Your task to perform on an android device: turn off data saver in the chrome app Image 0: 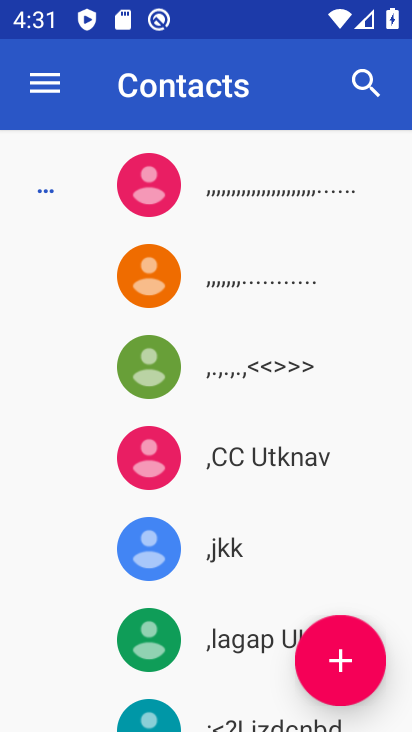
Step 0: press home button
Your task to perform on an android device: turn off data saver in the chrome app Image 1: 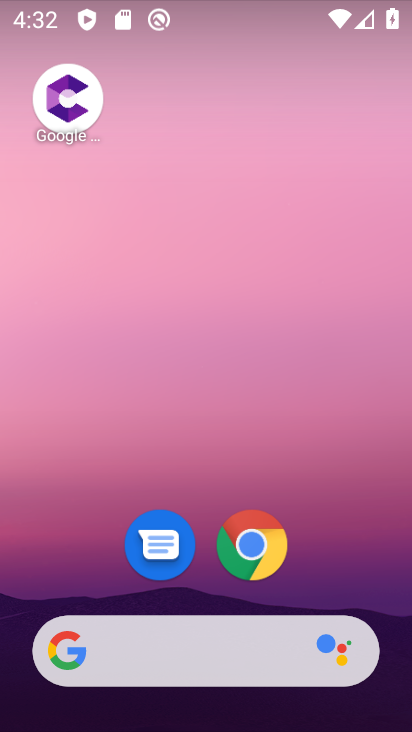
Step 1: click (262, 544)
Your task to perform on an android device: turn off data saver in the chrome app Image 2: 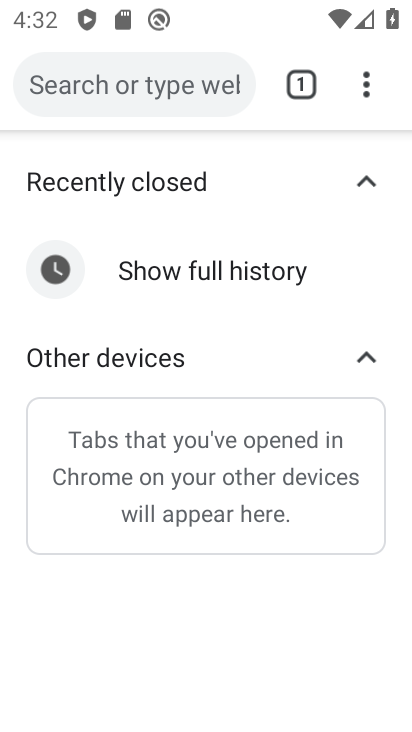
Step 2: drag from (363, 76) to (82, 597)
Your task to perform on an android device: turn off data saver in the chrome app Image 3: 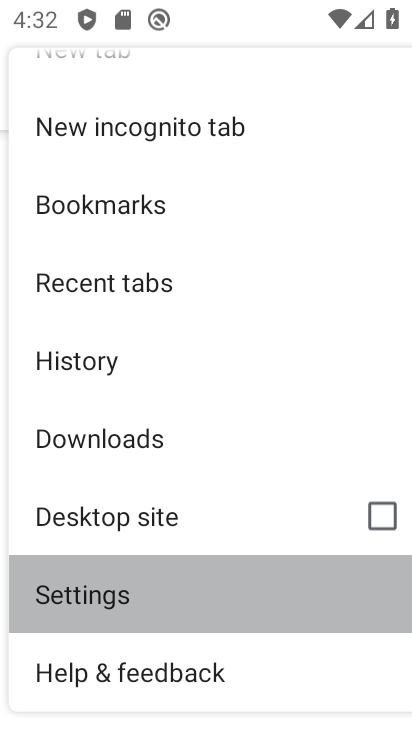
Step 3: click (82, 597)
Your task to perform on an android device: turn off data saver in the chrome app Image 4: 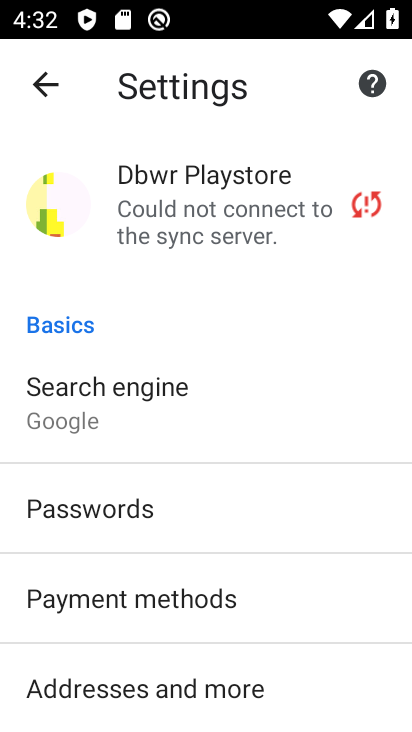
Step 4: drag from (235, 629) to (192, 180)
Your task to perform on an android device: turn off data saver in the chrome app Image 5: 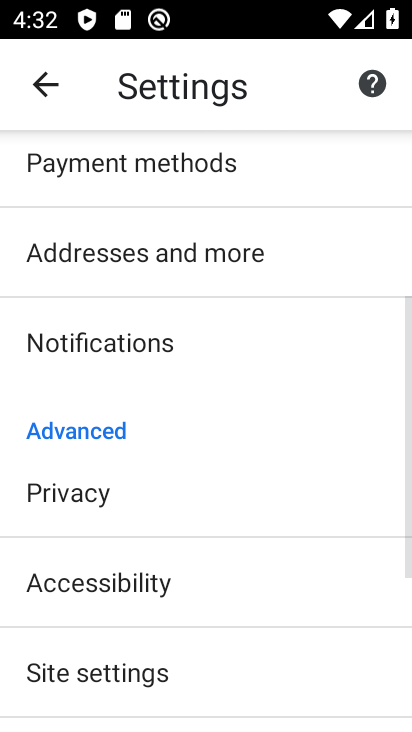
Step 5: drag from (257, 604) to (217, 133)
Your task to perform on an android device: turn off data saver in the chrome app Image 6: 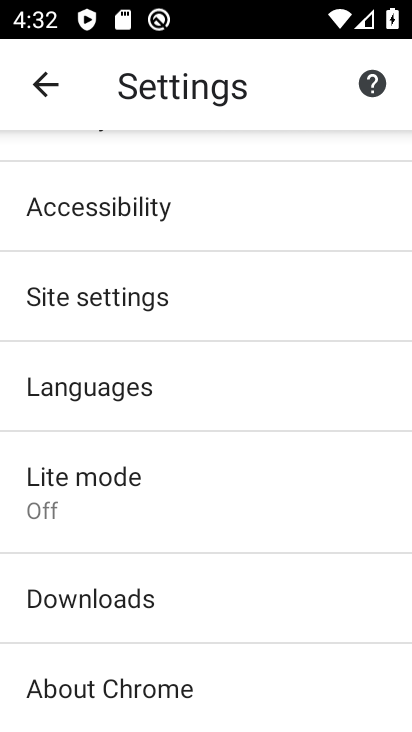
Step 6: click (98, 491)
Your task to perform on an android device: turn off data saver in the chrome app Image 7: 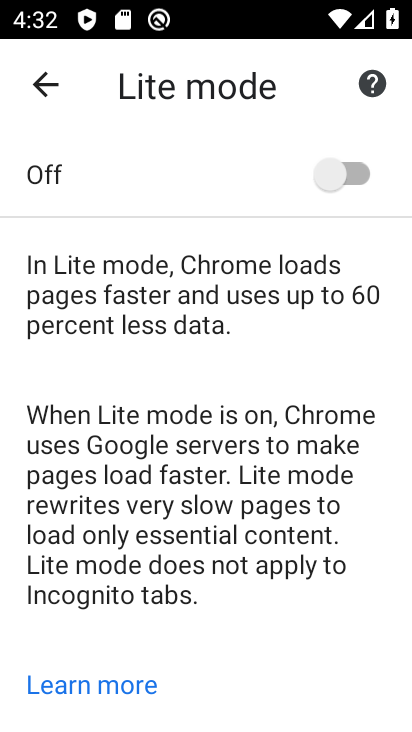
Step 7: task complete